Your task to perform on an android device: search for starred emails in the gmail app Image 0: 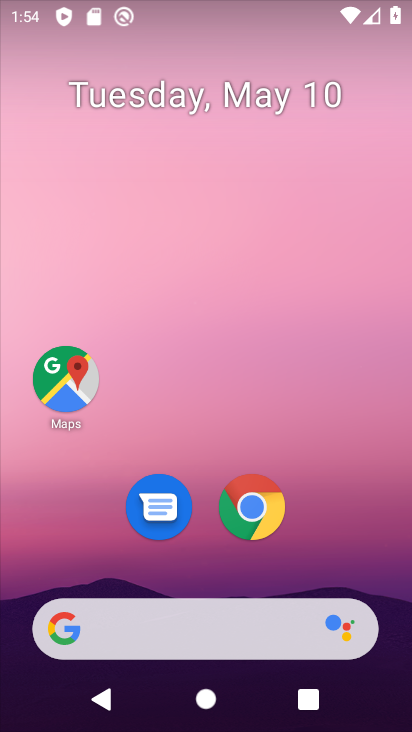
Step 0: drag from (215, 200) to (122, 11)
Your task to perform on an android device: search for starred emails in the gmail app Image 1: 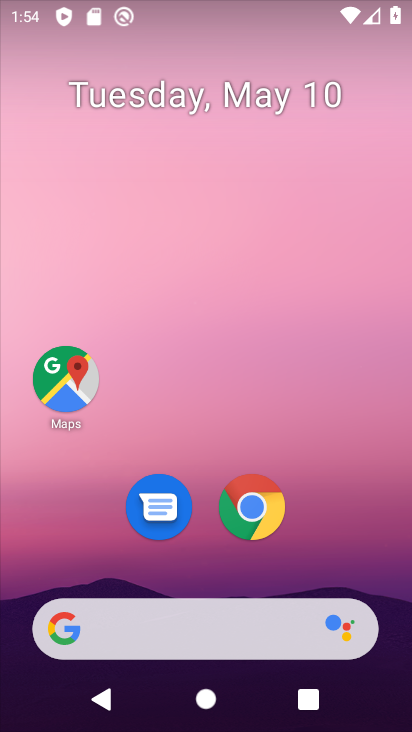
Step 1: drag from (336, 535) to (159, 16)
Your task to perform on an android device: search for starred emails in the gmail app Image 2: 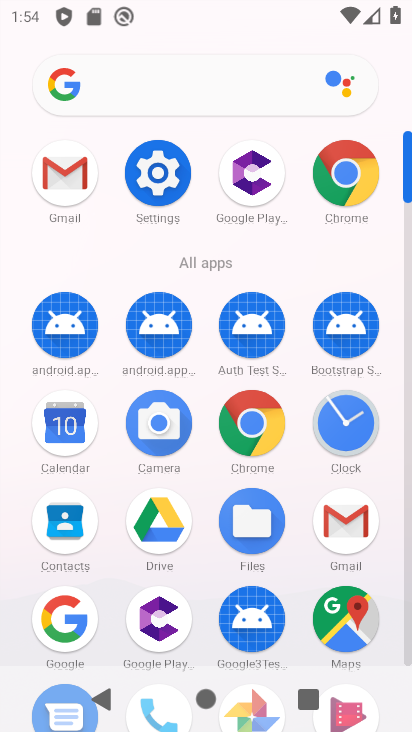
Step 2: click (334, 523)
Your task to perform on an android device: search for starred emails in the gmail app Image 3: 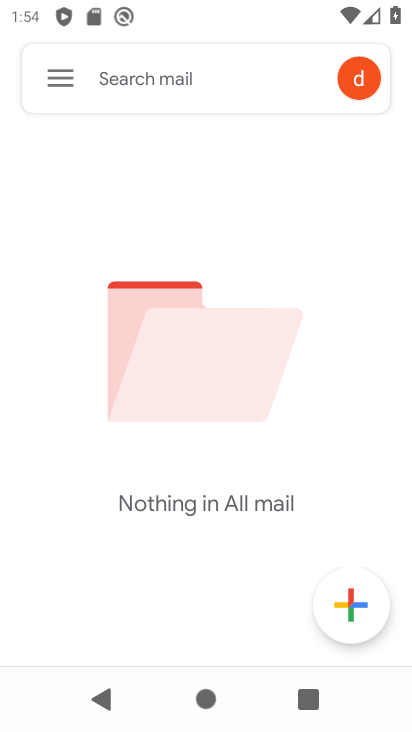
Step 3: click (60, 71)
Your task to perform on an android device: search for starred emails in the gmail app Image 4: 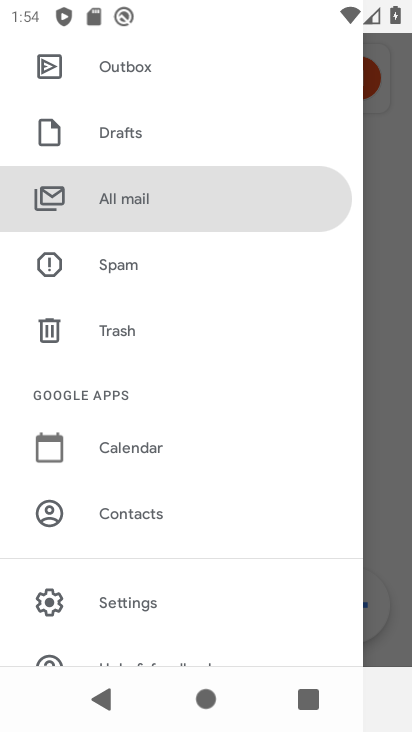
Step 4: drag from (186, 138) to (255, 580)
Your task to perform on an android device: search for starred emails in the gmail app Image 5: 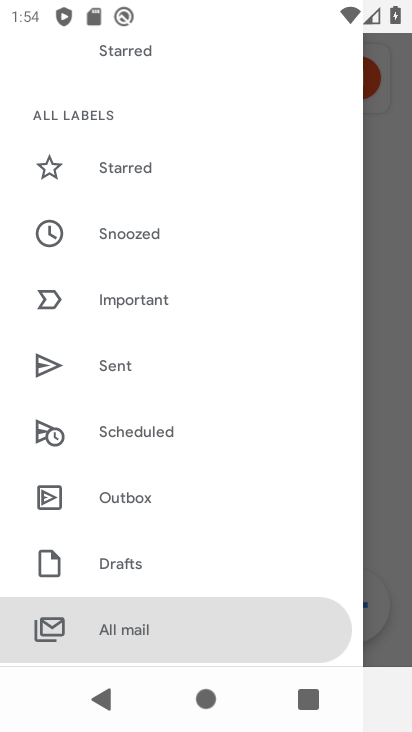
Step 5: click (116, 167)
Your task to perform on an android device: search for starred emails in the gmail app Image 6: 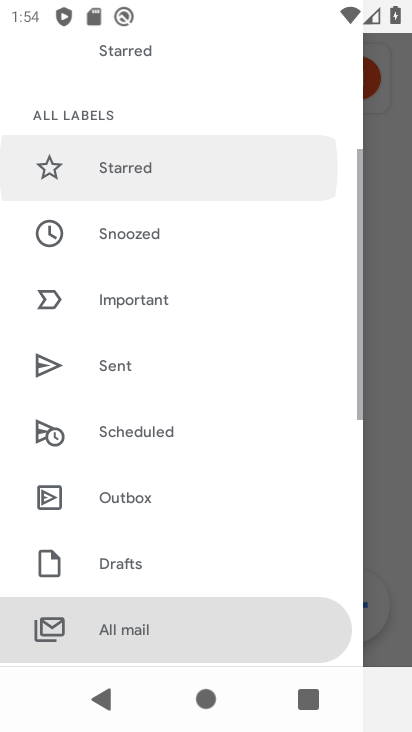
Step 6: click (116, 167)
Your task to perform on an android device: search for starred emails in the gmail app Image 7: 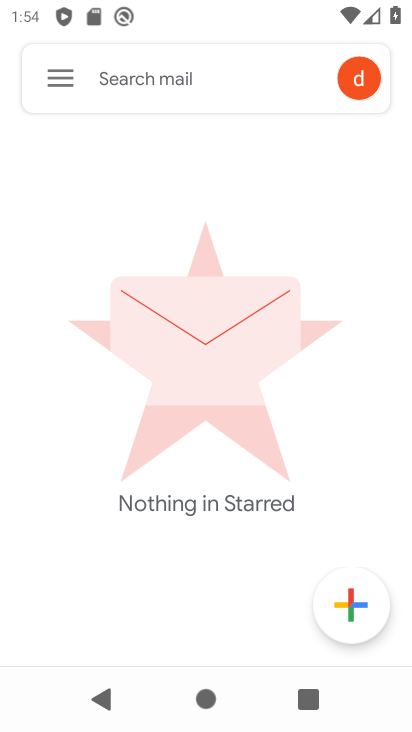
Step 7: task complete